Your task to perform on an android device: Search for Mexican restaurants on Maps Image 0: 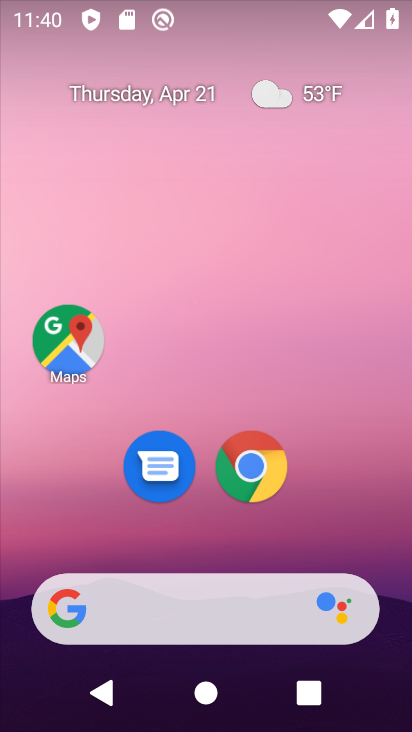
Step 0: drag from (330, 393) to (276, 25)
Your task to perform on an android device: Search for Mexican restaurants on Maps Image 1: 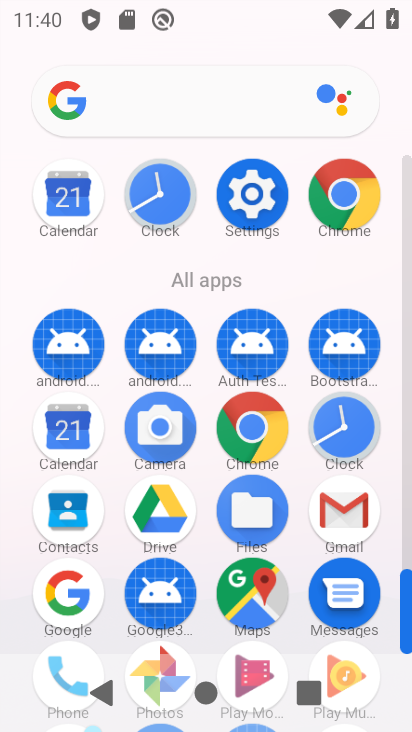
Step 1: drag from (0, 618) to (21, 294)
Your task to perform on an android device: Search for Mexican restaurants on Maps Image 2: 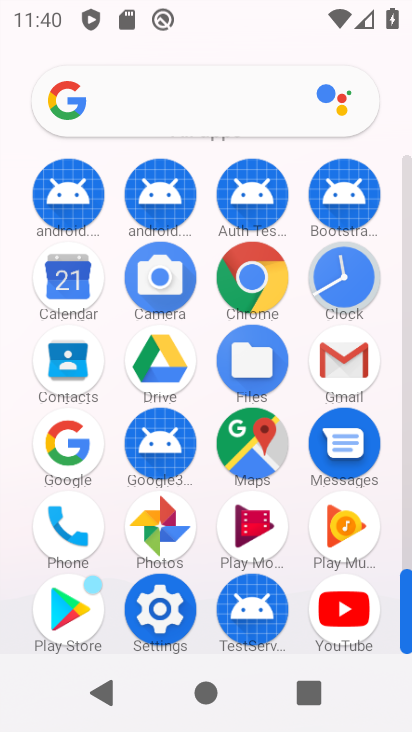
Step 2: click (254, 441)
Your task to perform on an android device: Search for Mexican restaurants on Maps Image 3: 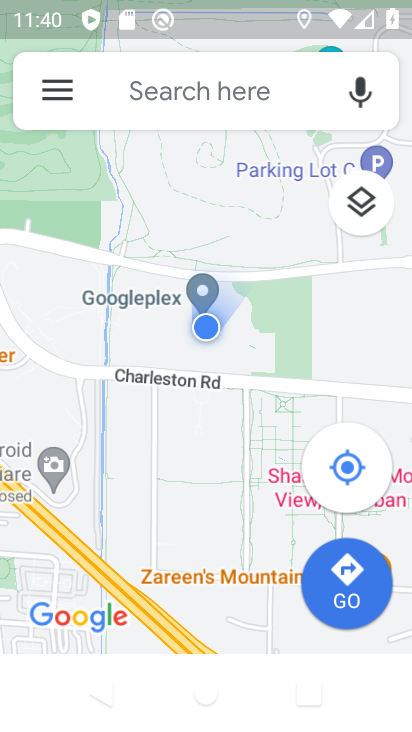
Step 3: click (277, 82)
Your task to perform on an android device: Search for Mexican restaurants on Maps Image 4: 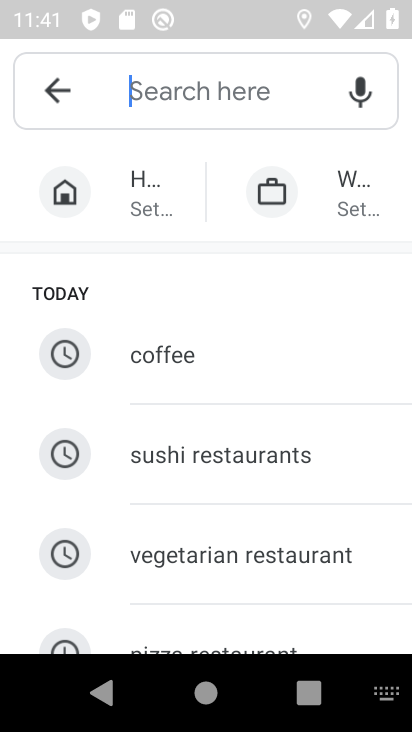
Step 4: type "Mexican restaurants"
Your task to perform on an android device: Search for Mexican restaurants on Maps Image 5: 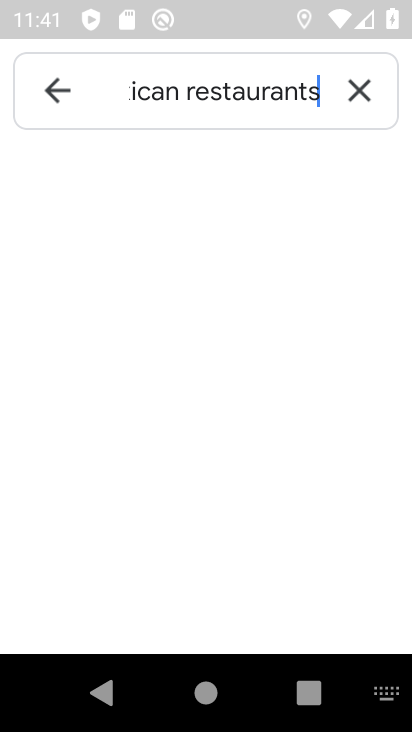
Step 5: type ""
Your task to perform on an android device: Search for Mexican restaurants on Maps Image 6: 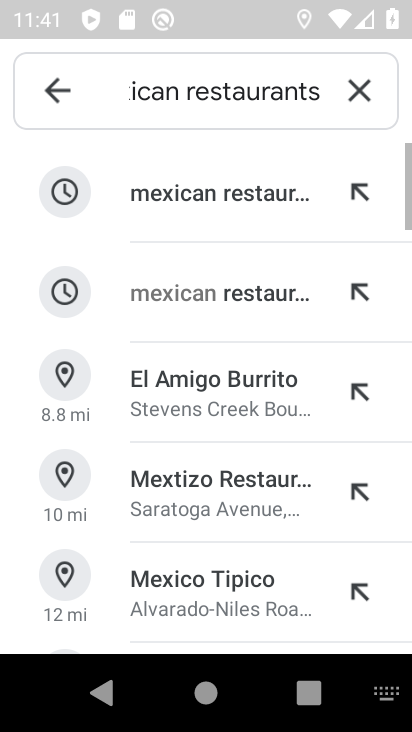
Step 6: click (208, 214)
Your task to perform on an android device: Search for Mexican restaurants on Maps Image 7: 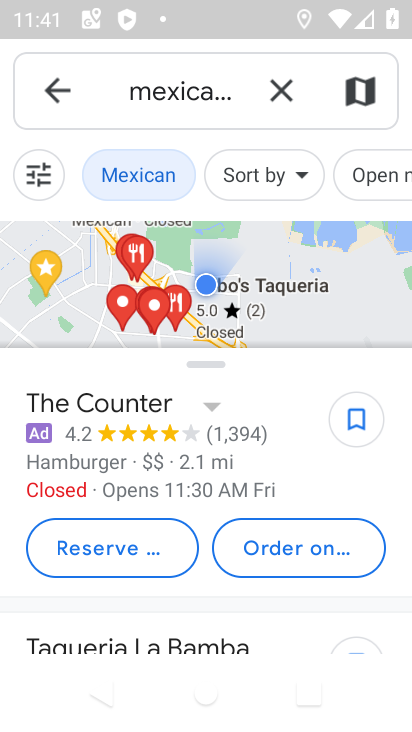
Step 7: task complete